Your task to perform on an android device: Open sound settings Image 0: 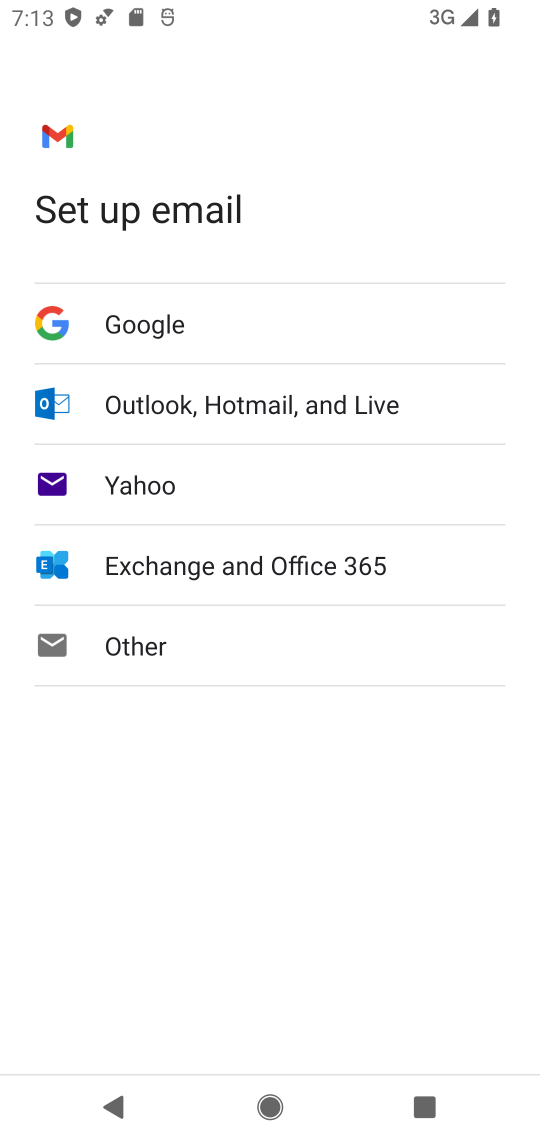
Step 0: press home button
Your task to perform on an android device: Open sound settings Image 1: 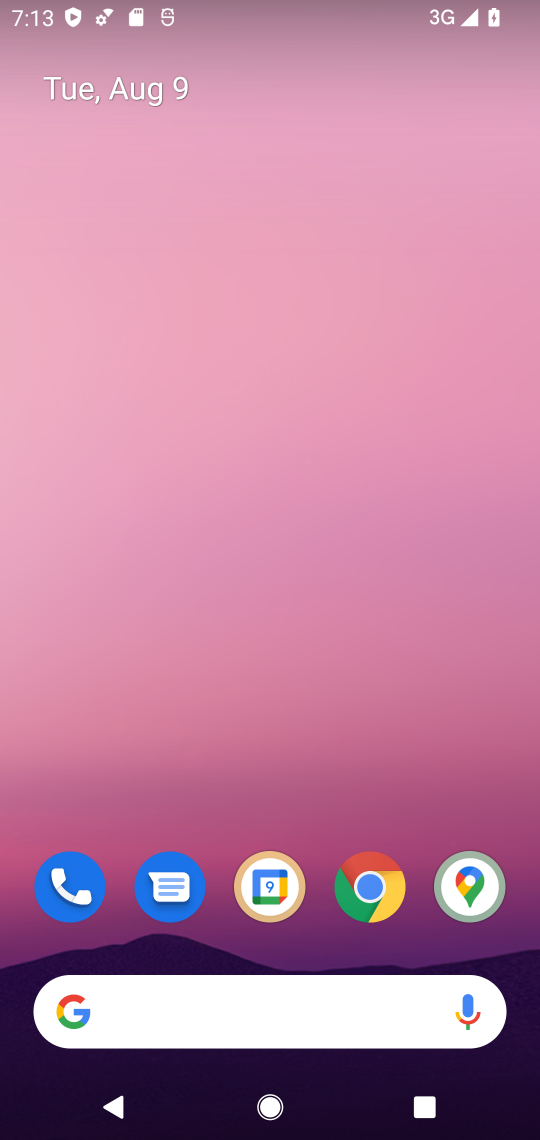
Step 1: drag from (284, 757) to (330, 1)
Your task to perform on an android device: Open sound settings Image 2: 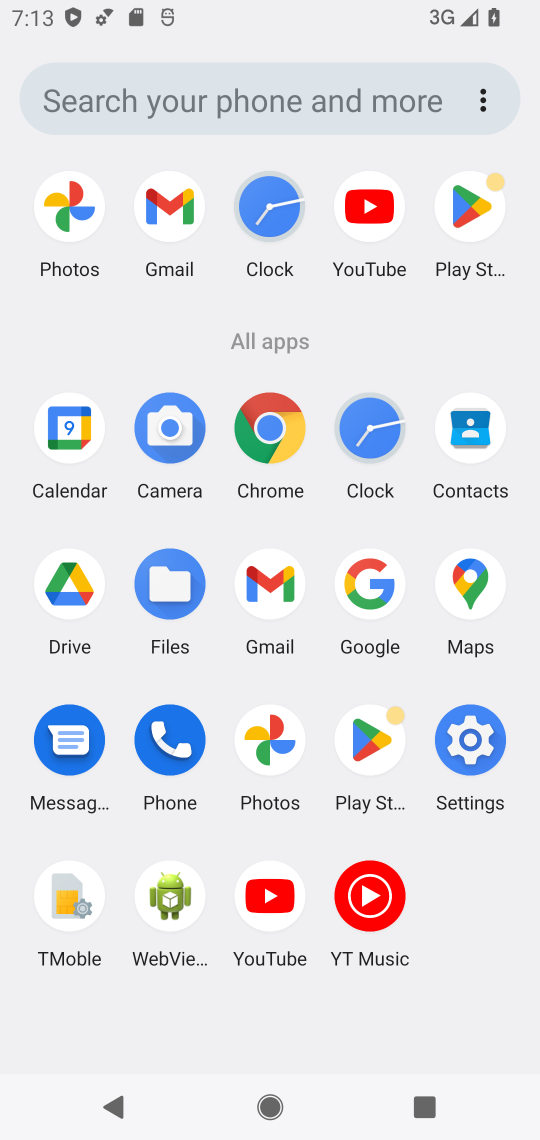
Step 2: click (463, 732)
Your task to perform on an android device: Open sound settings Image 3: 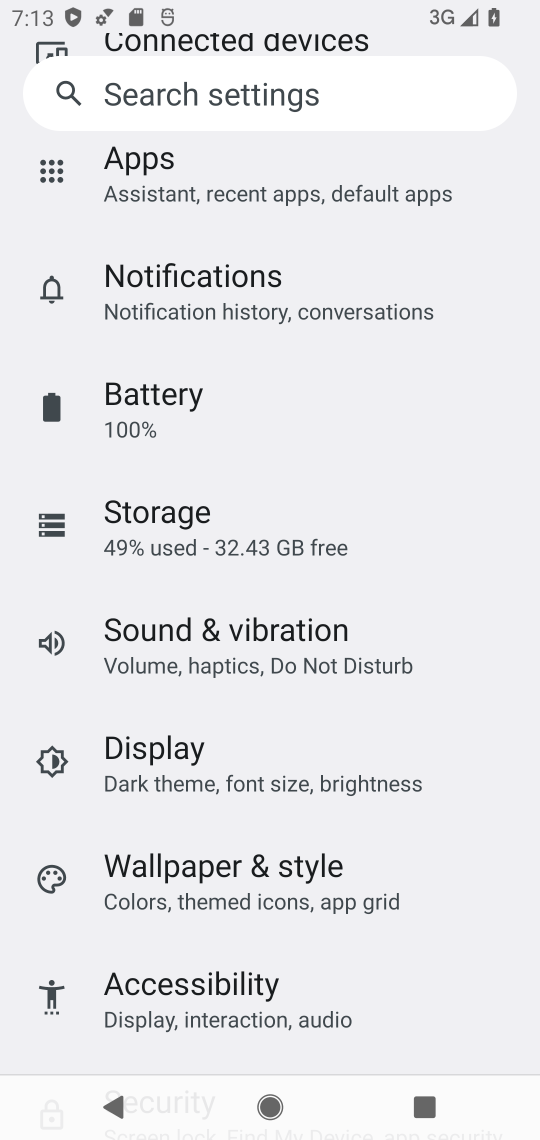
Step 3: click (289, 634)
Your task to perform on an android device: Open sound settings Image 4: 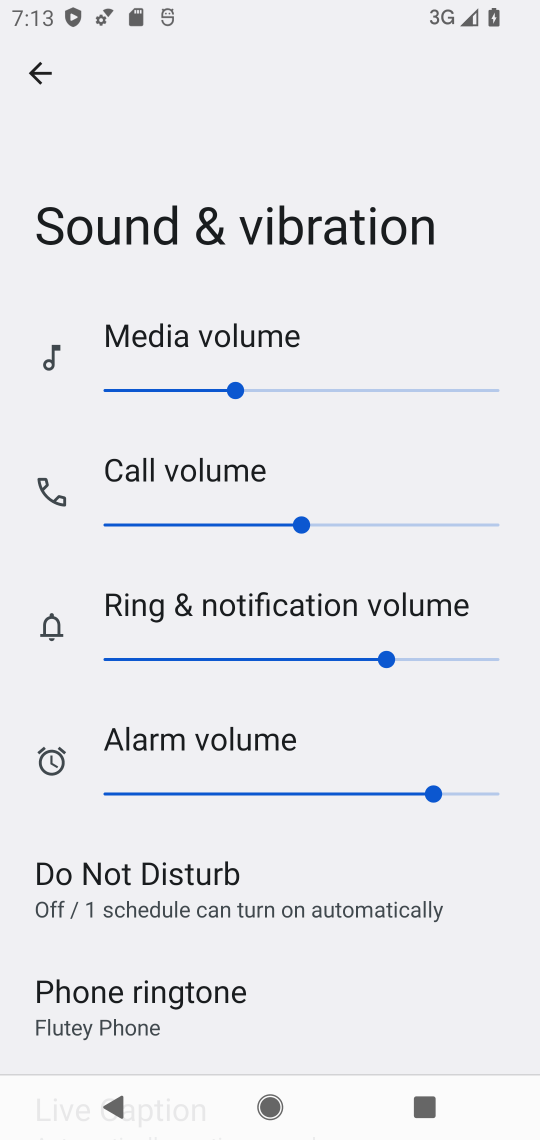
Step 4: task complete